Your task to perform on an android device: toggle translation in the chrome app Image 0: 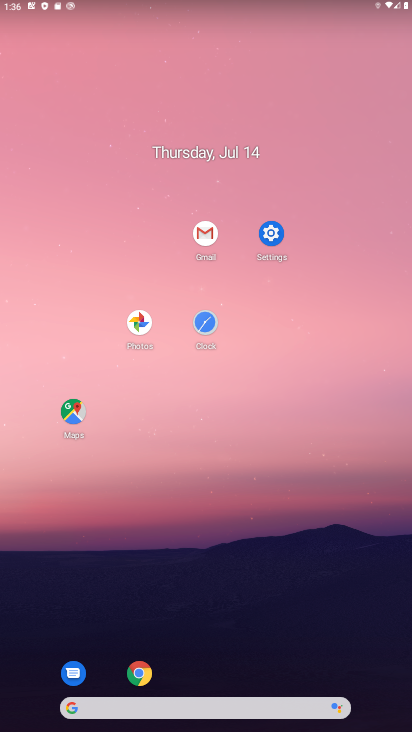
Step 0: click (137, 679)
Your task to perform on an android device: toggle translation in the chrome app Image 1: 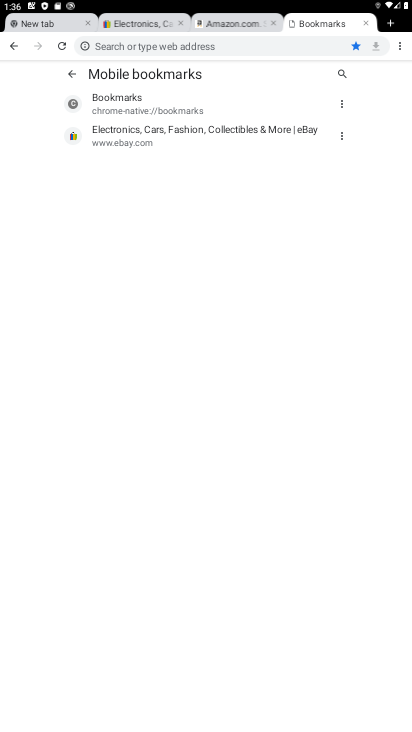
Step 1: click (399, 44)
Your task to perform on an android device: toggle translation in the chrome app Image 2: 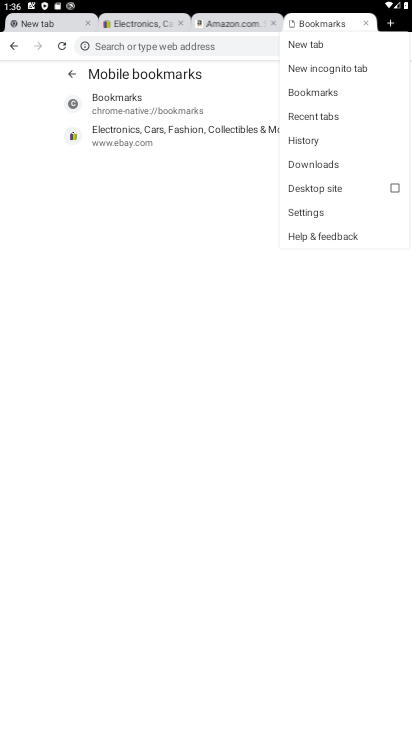
Step 2: click (332, 215)
Your task to perform on an android device: toggle translation in the chrome app Image 3: 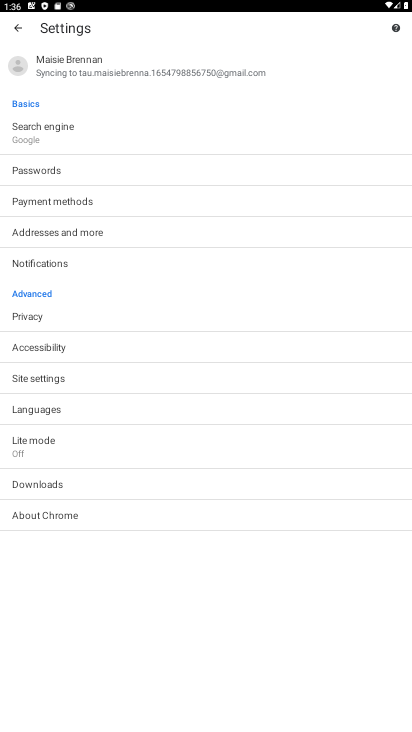
Step 3: click (90, 408)
Your task to perform on an android device: toggle translation in the chrome app Image 4: 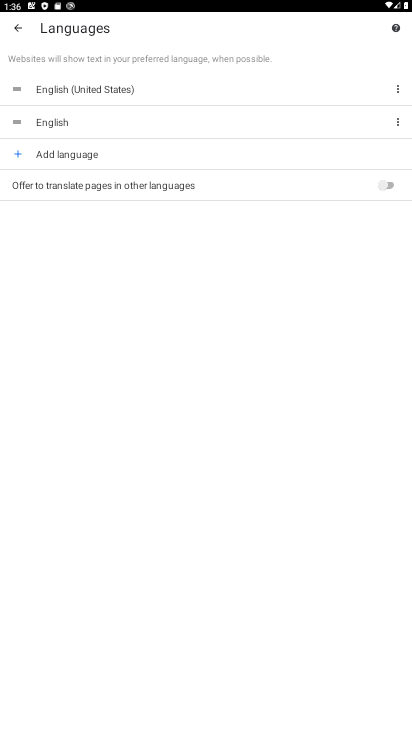
Step 4: click (391, 183)
Your task to perform on an android device: toggle translation in the chrome app Image 5: 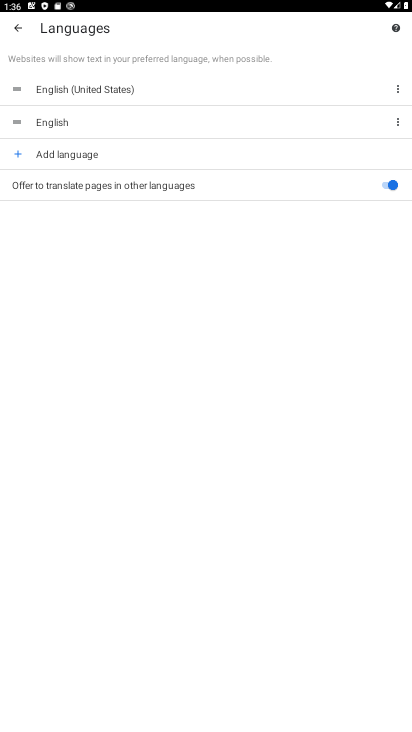
Step 5: task complete